Your task to perform on an android device: toggle notification dots Image 0: 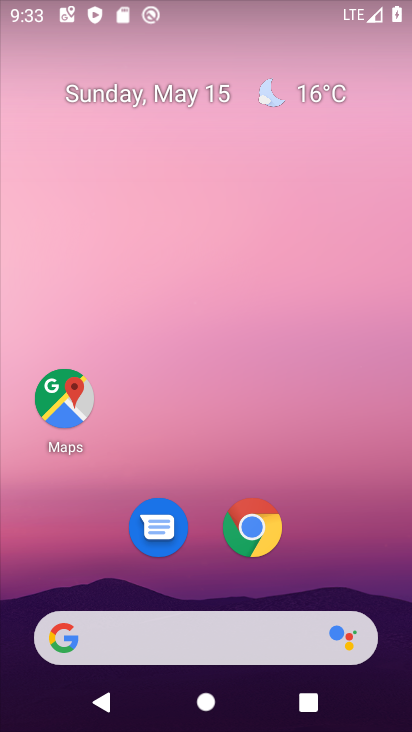
Step 0: drag from (362, 585) to (411, 27)
Your task to perform on an android device: toggle notification dots Image 1: 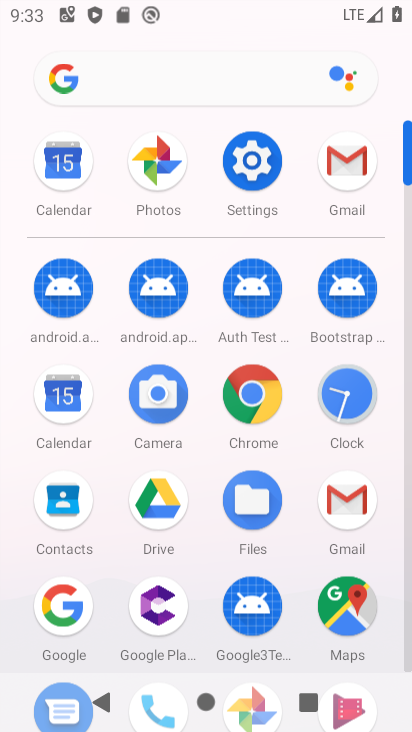
Step 1: click (254, 205)
Your task to perform on an android device: toggle notification dots Image 2: 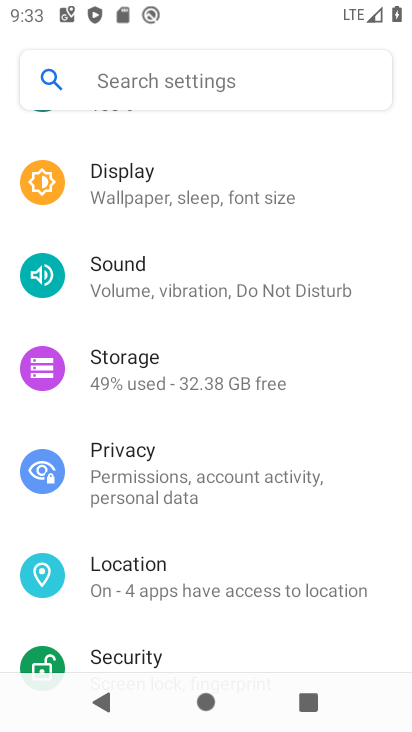
Step 2: drag from (264, 566) to (316, 731)
Your task to perform on an android device: toggle notification dots Image 3: 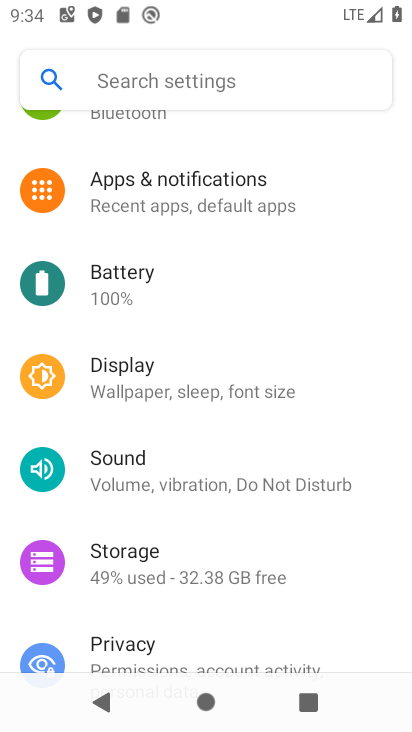
Step 3: click (132, 202)
Your task to perform on an android device: toggle notification dots Image 4: 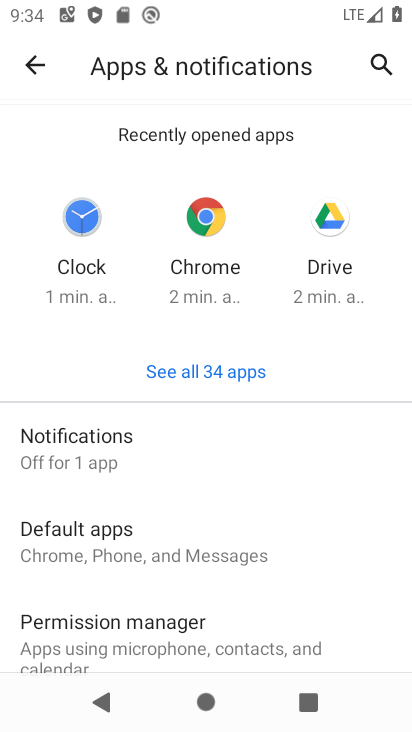
Step 4: click (42, 460)
Your task to perform on an android device: toggle notification dots Image 5: 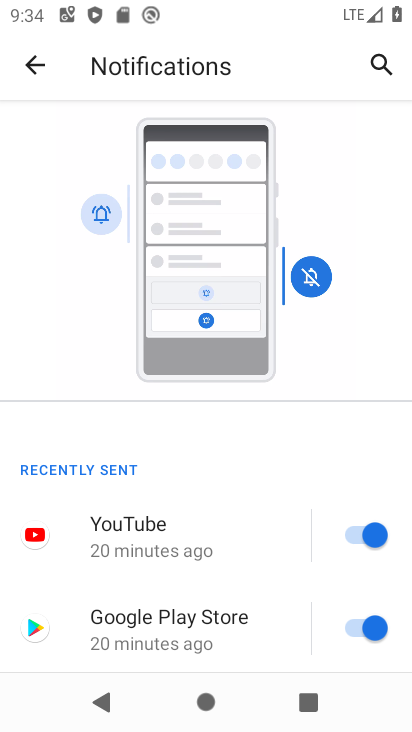
Step 5: drag from (169, 589) to (125, 95)
Your task to perform on an android device: toggle notification dots Image 6: 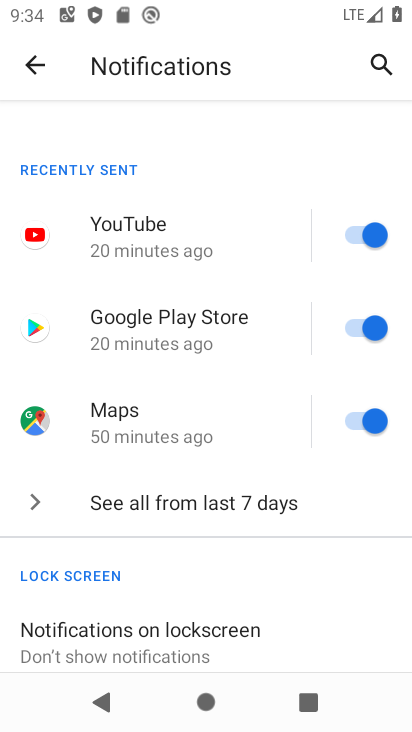
Step 6: drag from (129, 539) to (149, 289)
Your task to perform on an android device: toggle notification dots Image 7: 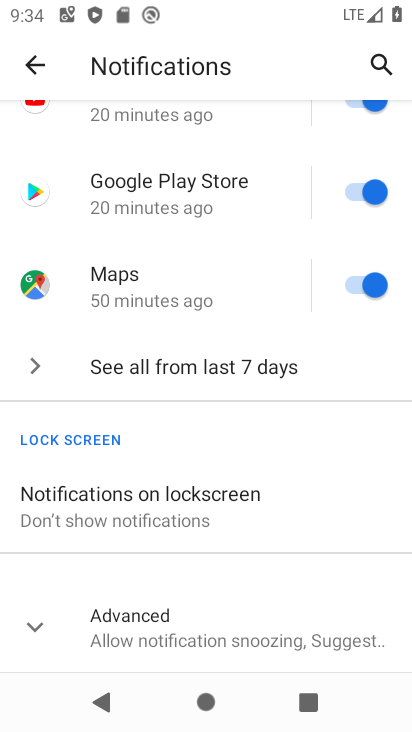
Step 7: click (33, 632)
Your task to perform on an android device: toggle notification dots Image 8: 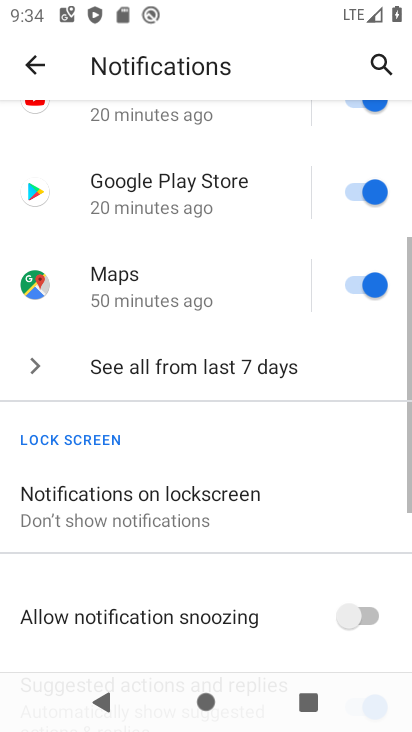
Step 8: drag from (116, 617) to (143, 215)
Your task to perform on an android device: toggle notification dots Image 9: 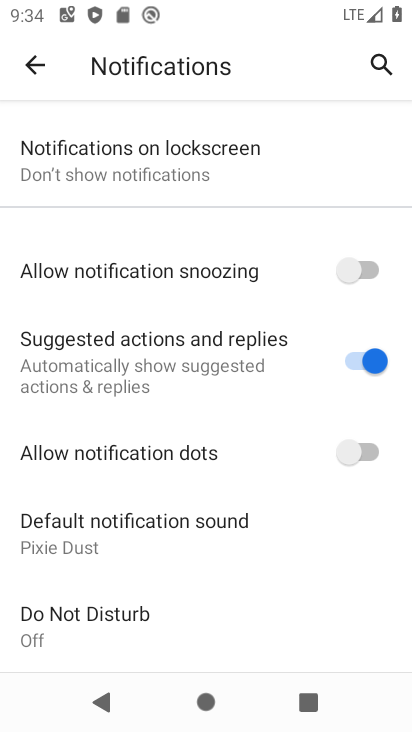
Step 9: click (353, 455)
Your task to perform on an android device: toggle notification dots Image 10: 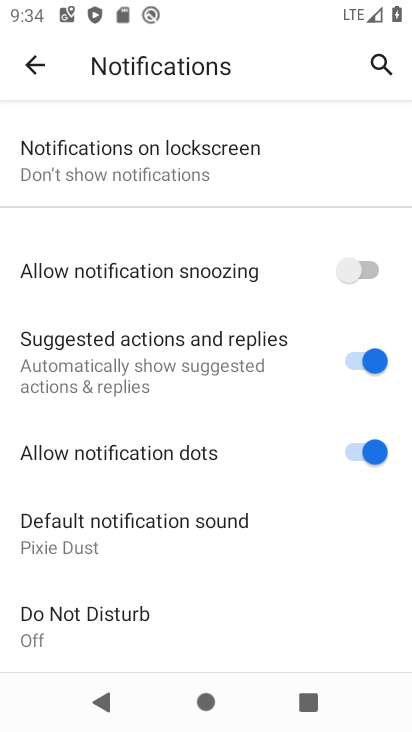
Step 10: task complete